Your task to perform on an android device: What's the weather going to be tomorrow? Image 0: 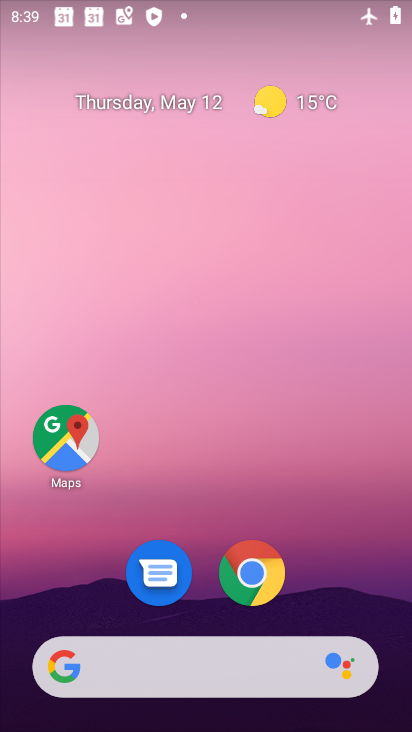
Step 0: click (156, 657)
Your task to perform on an android device: What's the weather going to be tomorrow? Image 1: 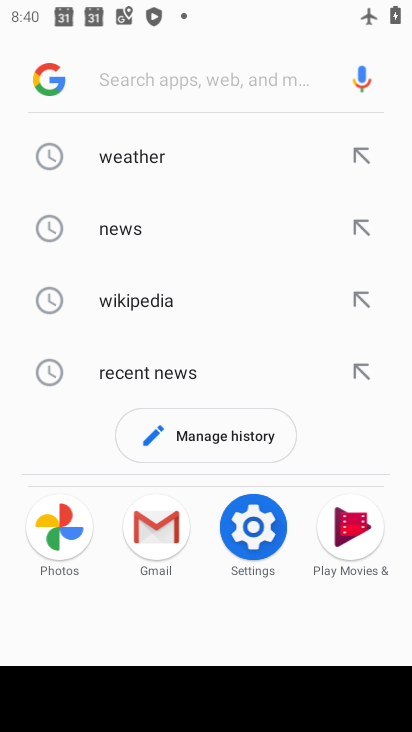
Step 1: click (119, 151)
Your task to perform on an android device: What's the weather going to be tomorrow? Image 2: 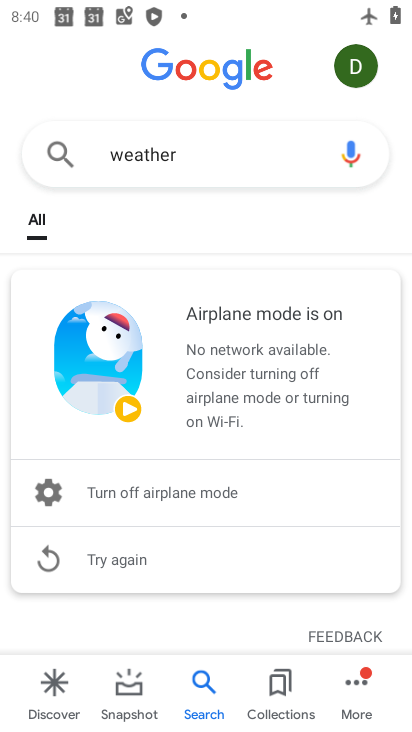
Step 2: task complete